Your task to perform on an android device: turn off translation in the chrome app Image 0: 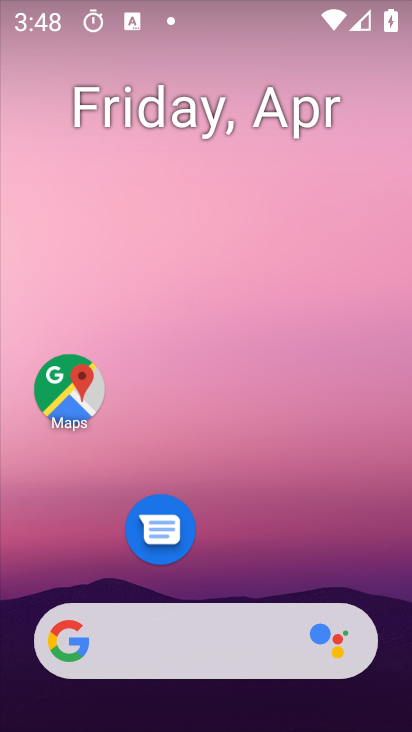
Step 0: drag from (201, 483) to (221, 247)
Your task to perform on an android device: turn off translation in the chrome app Image 1: 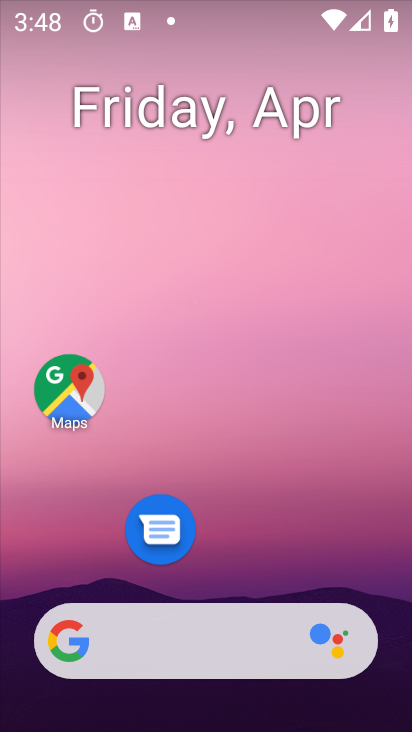
Step 1: drag from (212, 572) to (234, 211)
Your task to perform on an android device: turn off translation in the chrome app Image 2: 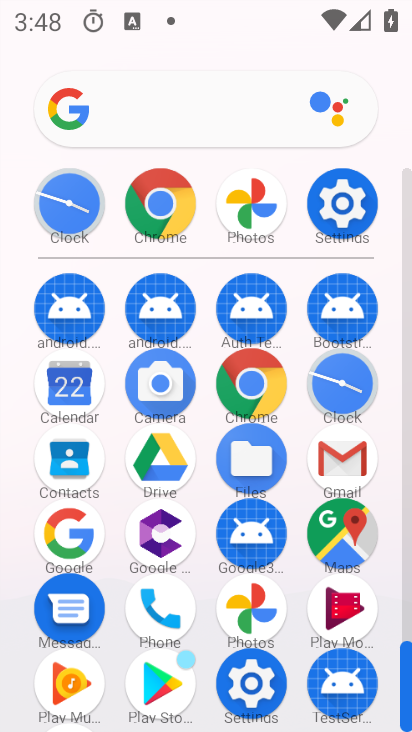
Step 2: click (254, 399)
Your task to perform on an android device: turn off translation in the chrome app Image 3: 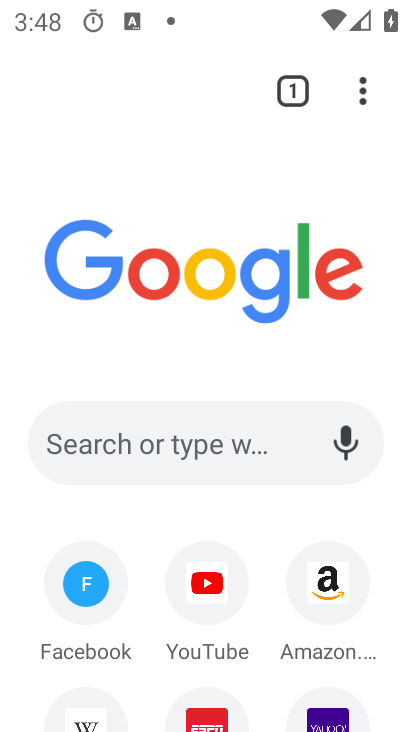
Step 3: click (357, 94)
Your task to perform on an android device: turn off translation in the chrome app Image 4: 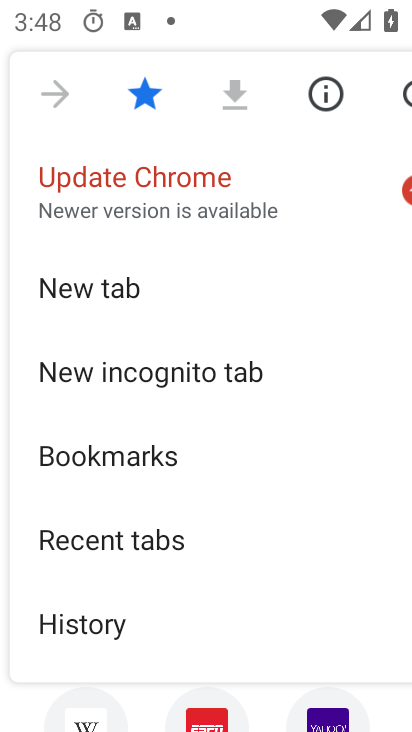
Step 4: task complete